Your task to perform on an android device: Open calendar and show me the second week of next month Image 0: 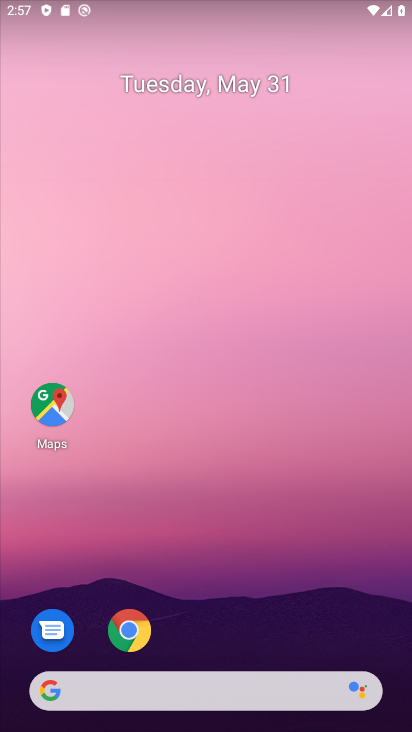
Step 0: click (204, 83)
Your task to perform on an android device: Open calendar and show me the second week of next month Image 1: 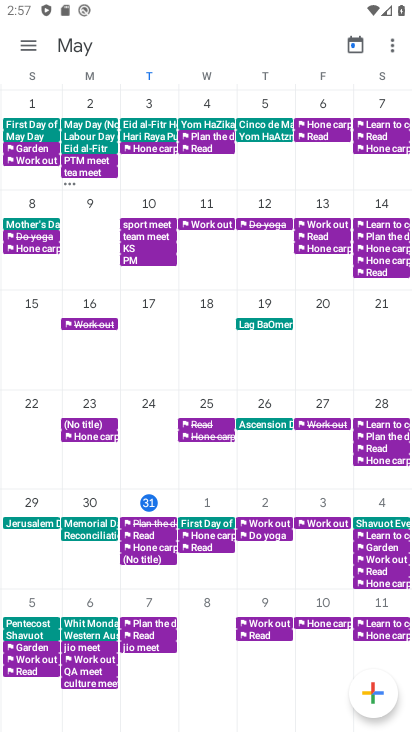
Step 1: click (82, 47)
Your task to perform on an android device: Open calendar and show me the second week of next month Image 2: 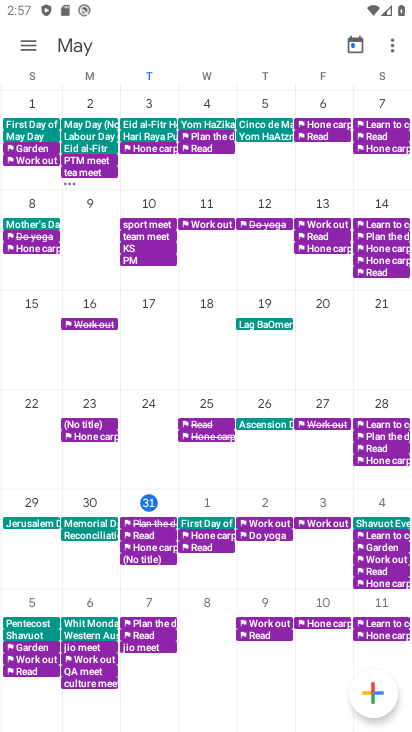
Step 2: click (84, 47)
Your task to perform on an android device: Open calendar and show me the second week of next month Image 3: 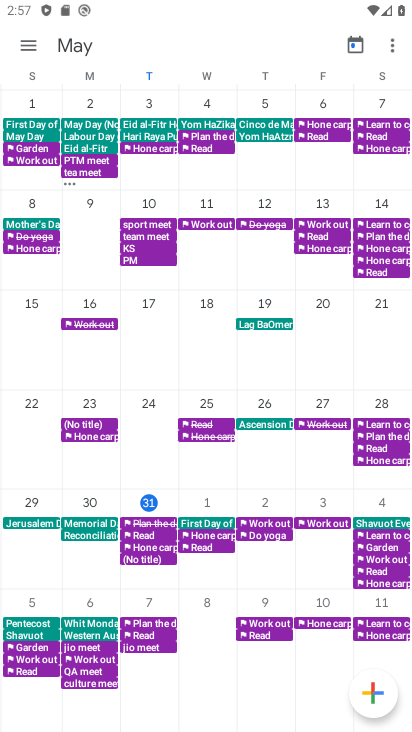
Step 3: click (84, 47)
Your task to perform on an android device: Open calendar and show me the second week of next month Image 4: 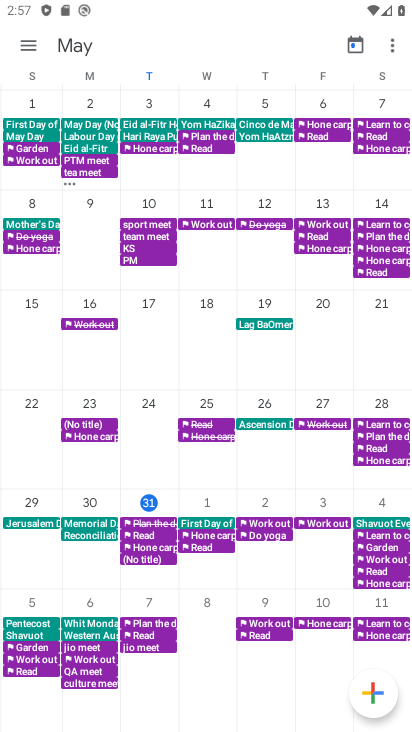
Step 4: click (84, 47)
Your task to perform on an android device: Open calendar and show me the second week of next month Image 5: 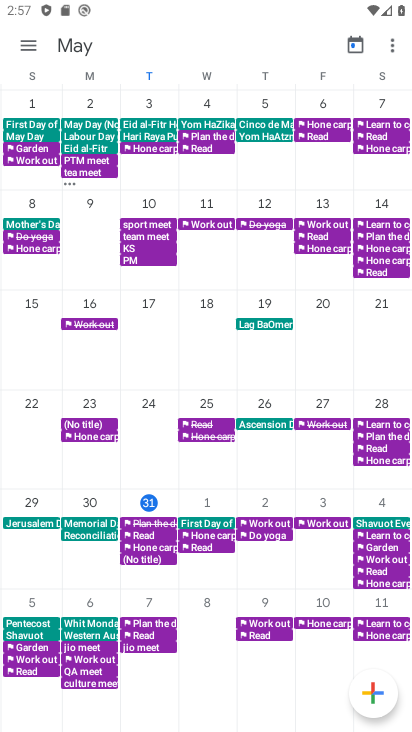
Step 5: click (84, 47)
Your task to perform on an android device: Open calendar and show me the second week of next month Image 6: 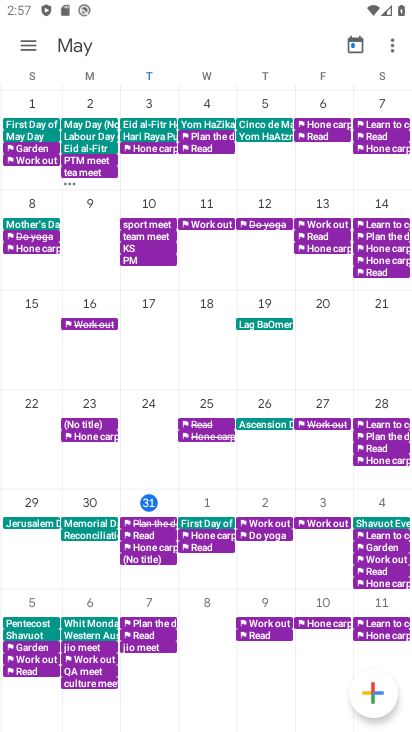
Step 6: drag from (277, 692) to (267, 36)
Your task to perform on an android device: Open calendar and show me the second week of next month Image 7: 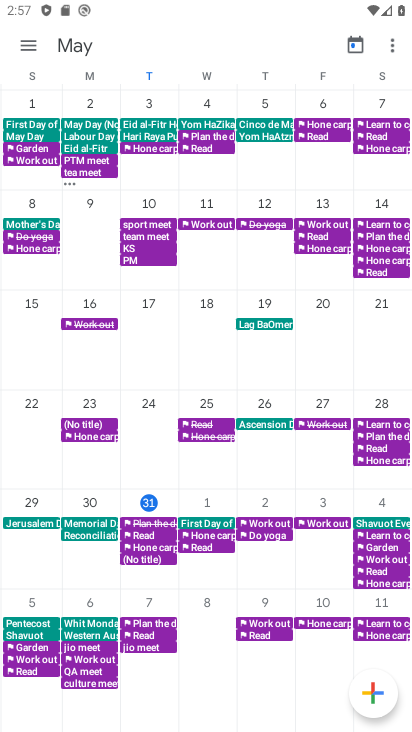
Step 7: drag from (277, 253) to (54, 262)
Your task to perform on an android device: Open calendar and show me the second week of next month Image 8: 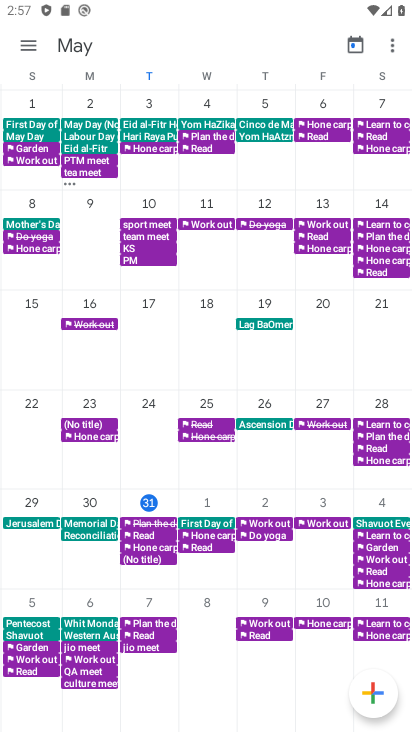
Step 8: click (214, 621)
Your task to perform on an android device: Open calendar and show me the second week of next month Image 9: 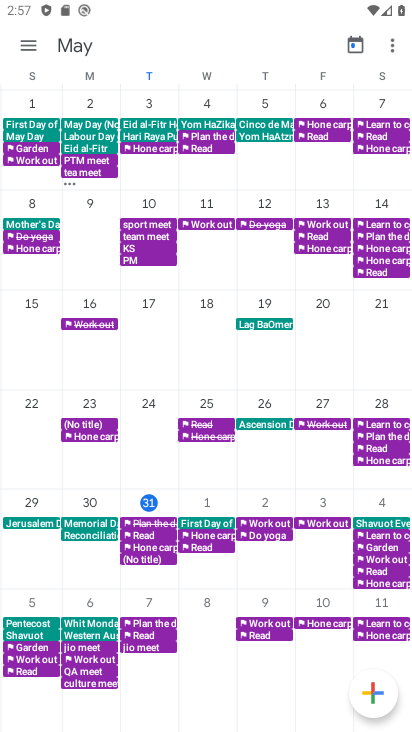
Step 9: click (214, 621)
Your task to perform on an android device: Open calendar and show me the second week of next month Image 10: 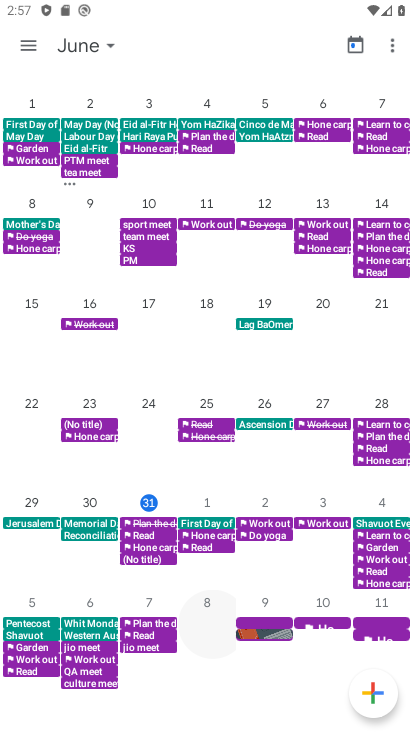
Step 10: click (214, 621)
Your task to perform on an android device: Open calendar and show me the second week of next month Image 11: 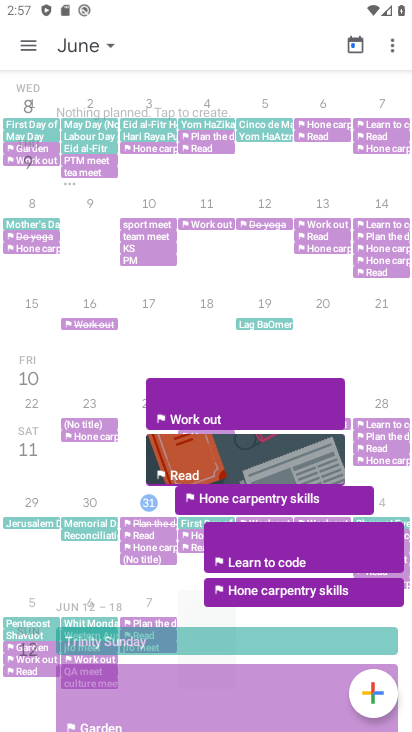
Step 11: click (214, 621)
Your task to perform on an android device: Open calendar and show me the second week of next month Image 12: 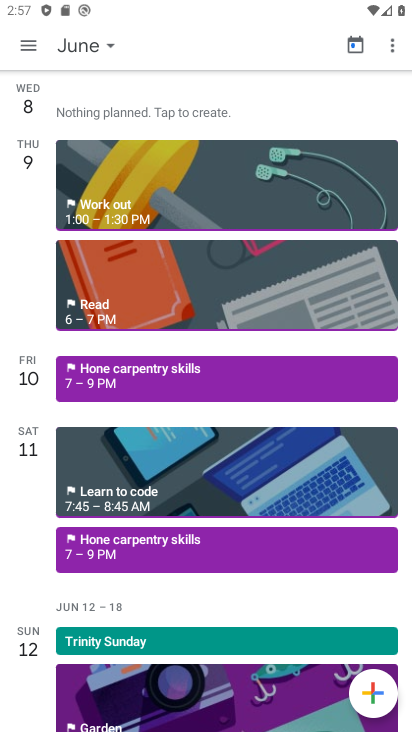
Step 12: click (214, 621)
Your task to perform on an android device: Open calendar and show me the second week of next month Image 13: 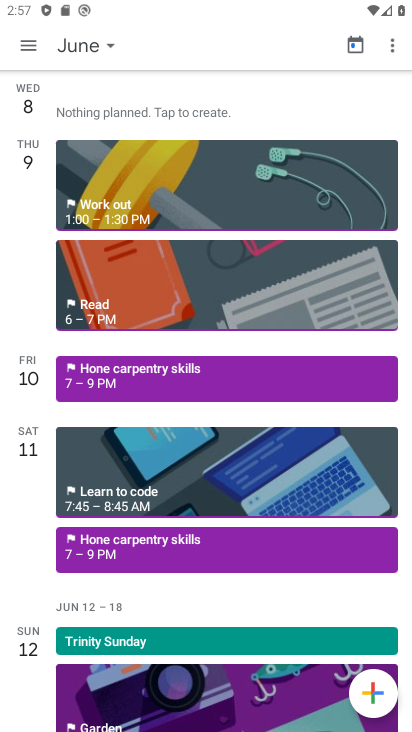
Step 13: task complete